Your task to perform on an android device: change your default location settings in chrome Image 0: 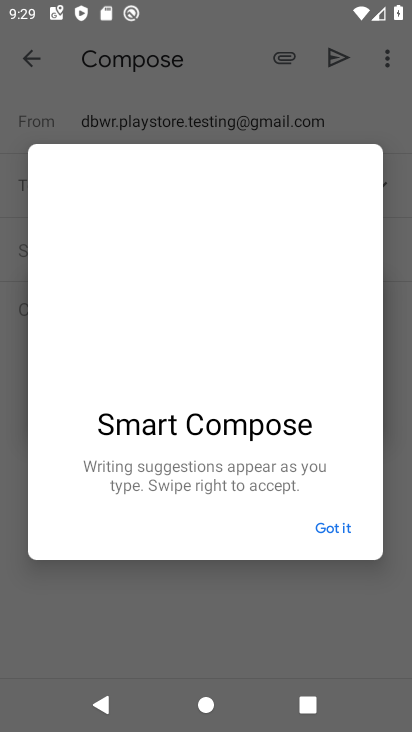
Step 0: press home button
Your task to perform on an android device: change your default location settings in chrome Image 1: 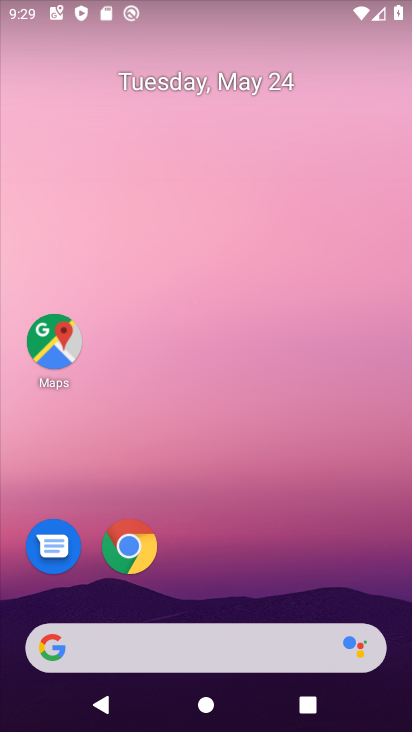
Step 1: click (136, 563)
Your task to perform on an android device: change your default location settings in chrome Image 2: 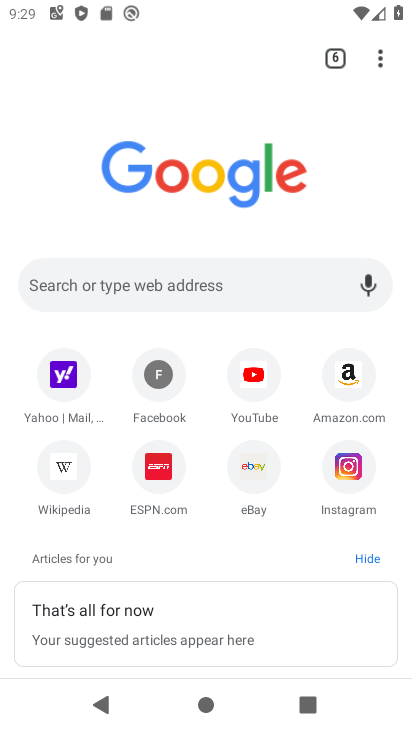
Step 2: click (379, 53)
Your task to perform on an android device: change your default location settings in chrome Image 3: 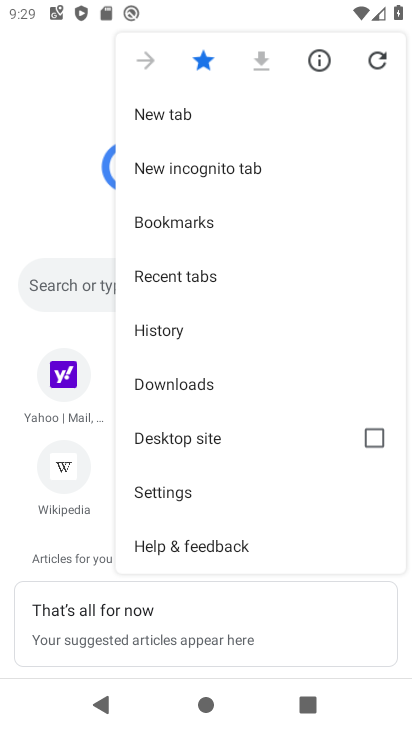
Step 3: click (190, 490)
Your task to perform on an android device: change your default location settings in chrome Image 4: 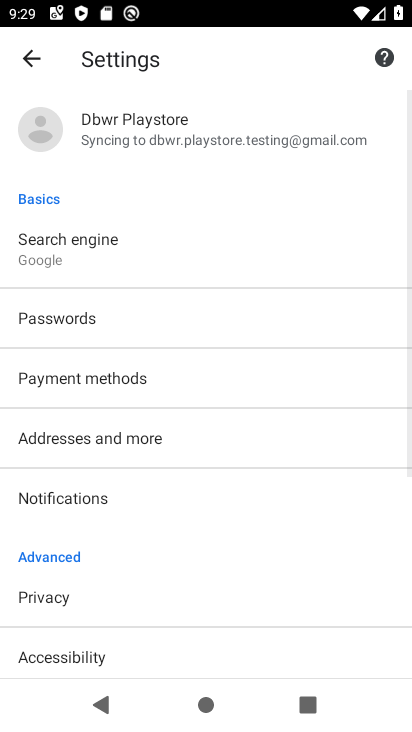
Step 4: drag from (190, 525) to (207, 342)
Your task to perform on an android device: change your default location settings in chrome Image 5: 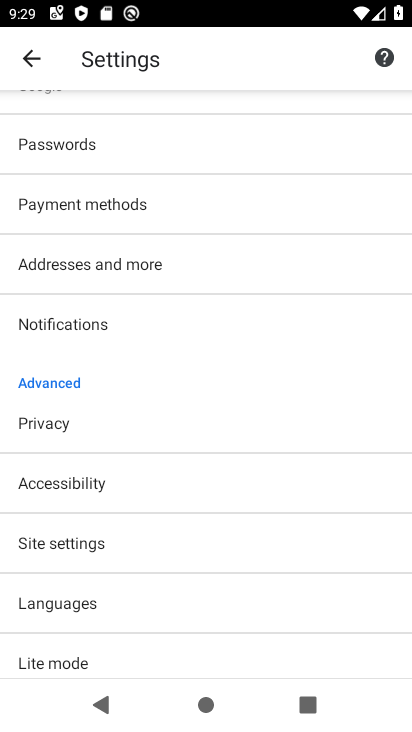
Step 5: click (176, 540)
Your task to perform on an android device: change your default location settings in chrome Image 6: 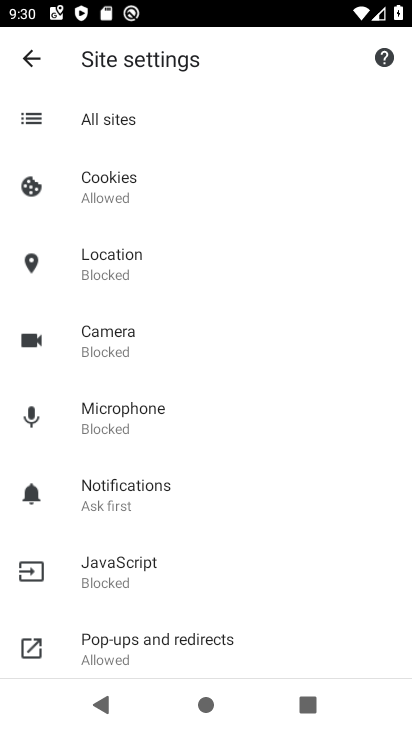
Step 6: click (202, 260)
Your task to perform on an android device: change your default location settings in chrome Image 7: 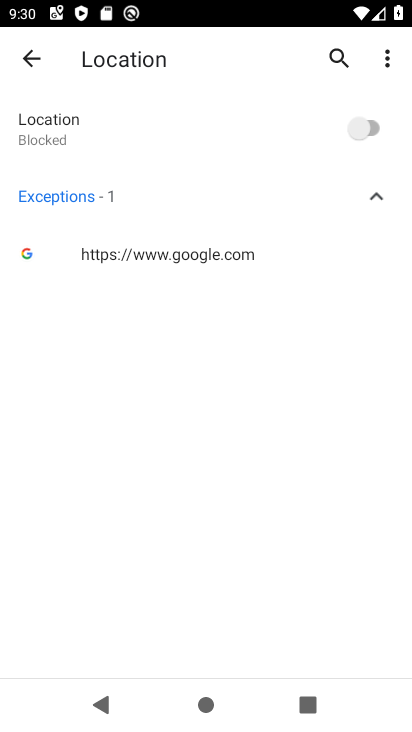
Step 7: click (364, 119)
Your task to perform on an android device: change your default location settings in chrome Image 8: 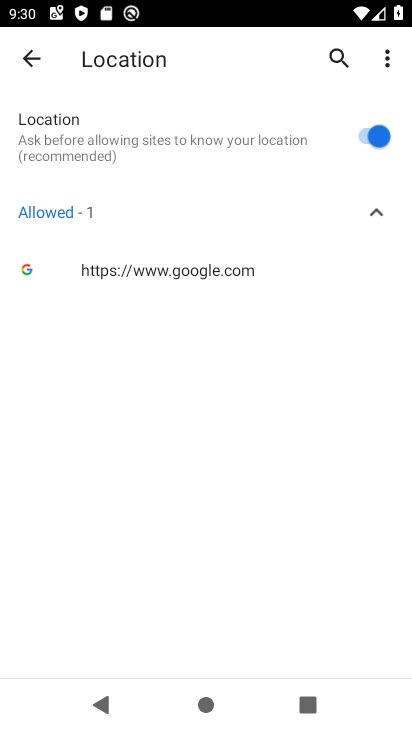
Step 8: task complete